Your task to perform on an android device: turn on notifications settings in the gmail app Image 0: 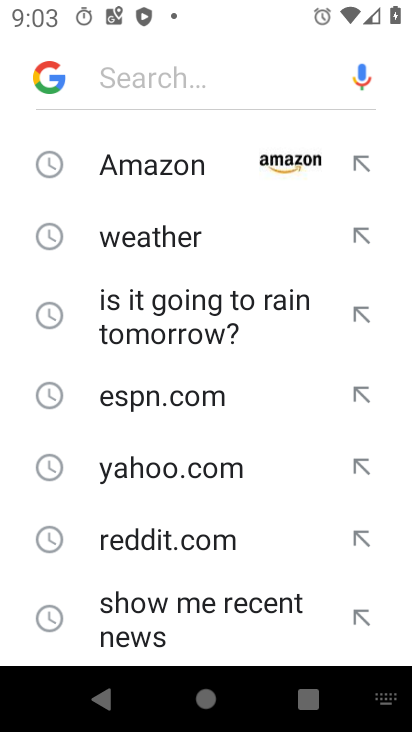
Step 0: press back button
Your task to perform on an android device: turn on notifications settings in the gmail app Image 1: 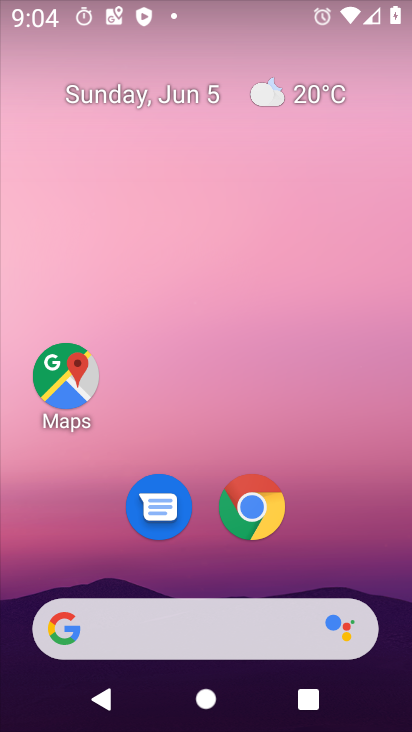
Step 1: drag from (328, 520) to (248, 5)
Your task to perform on an android device: turn on notifications settings in the gmail app Image 2: 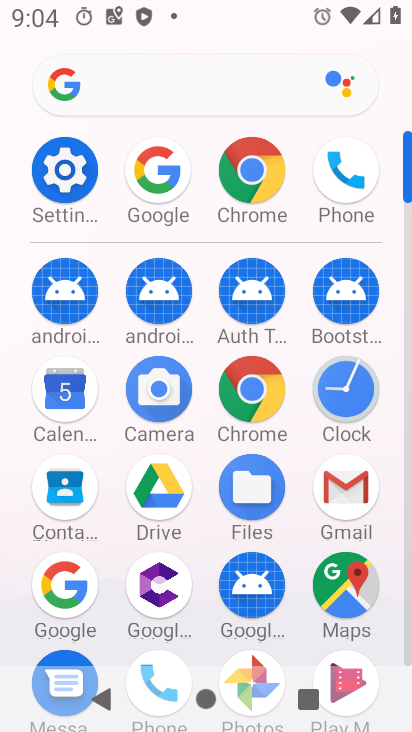
Step 2: drag from (5, 573) to (14, 209)
Your task to perform on an android device: turn on notifications settings in the gmail app Image 3: 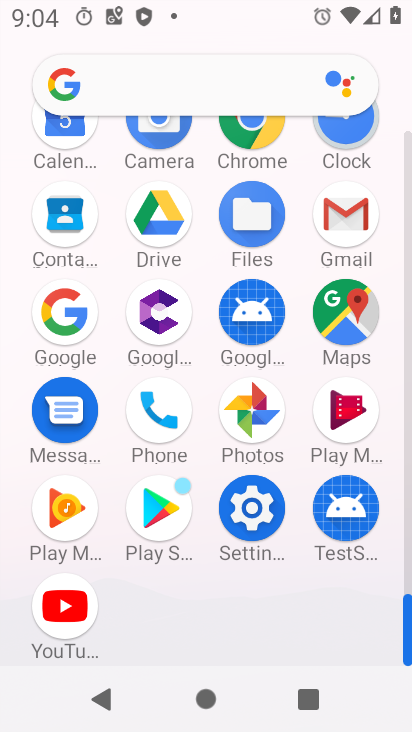
Step 3: click (345, 211)
Your task to perform on an android device: turn on notifications settings in the gmail app Image 4: 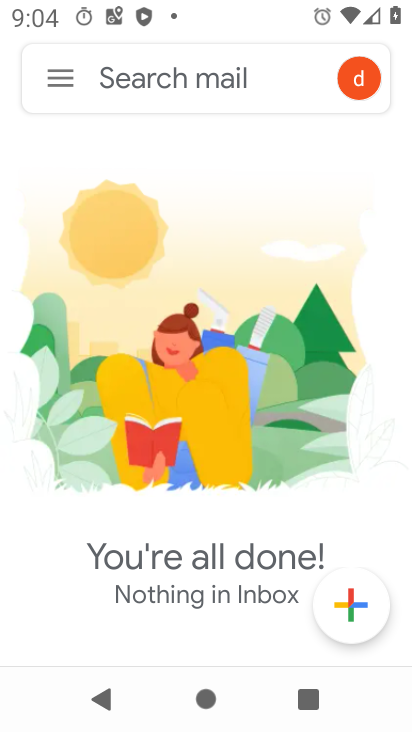
Step 4: click (42, 69)
Your task to perform on an android device: turn on notifications settings in the gmail app Image 5: 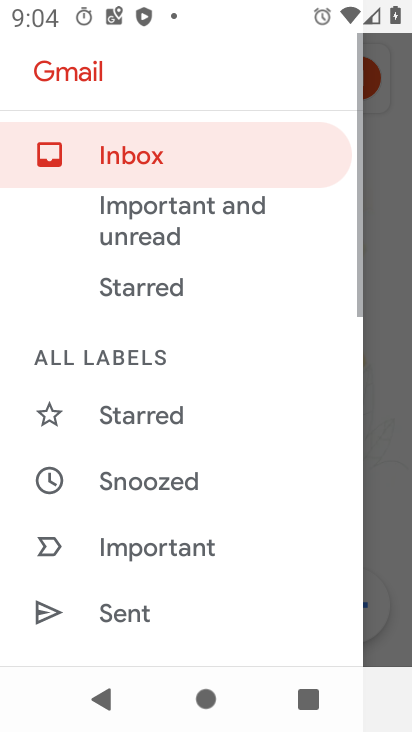
Step 5: drag from (198, 536) to (212, 125)
Your task to perform on an android device: turn on notifications settings in the gmail app Image 6: 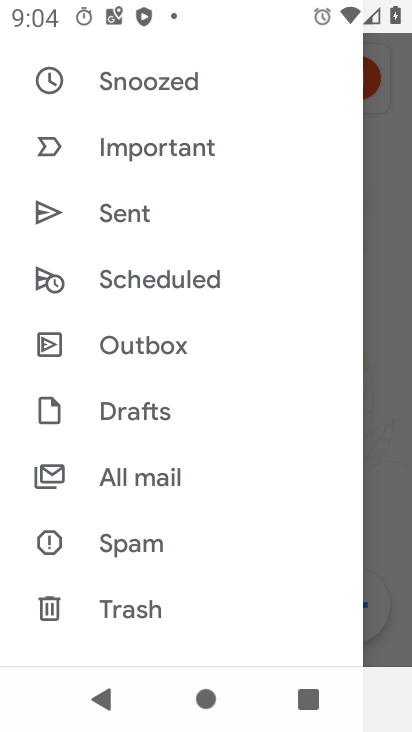
Step 6: drag from (221, 583) to (250, 99)
Your task to perform on an android device: turn on notifications settings in the gmail app Image 7: 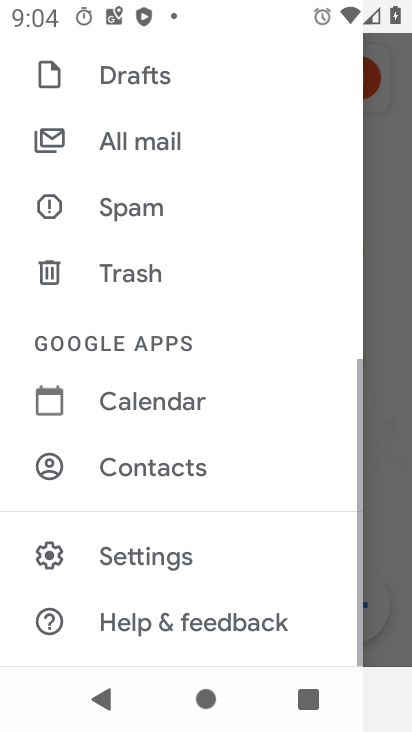
Step 7: click (161, 551)
Your task to perform on an android device: turn on notifications settings in the gmail app Image 8: 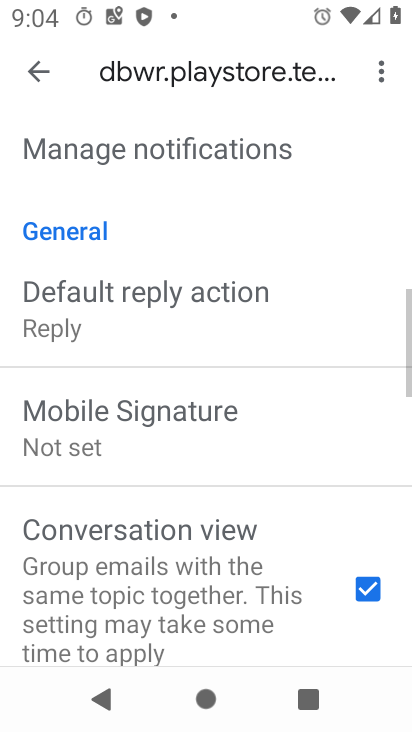
Step 8: drag from (215, 555) to (270, 164)
Your task to perform on an android device: turn on notifications settings in the gmail app Image 9: 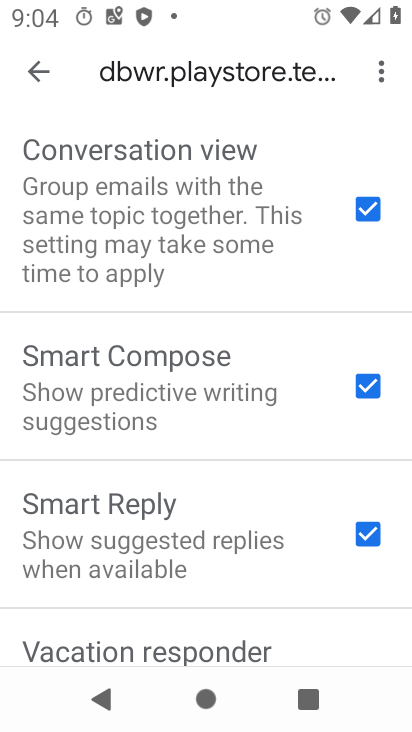
Step 9: drag from (236, 544) to (243, 152)
Your task to perform on an android device: turn on notifications settings in the gmail app Image 10: 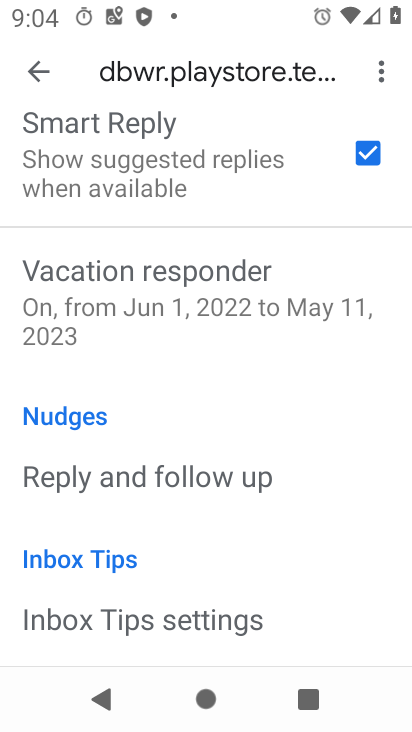
Step 10: drag from (236, 529) to (234, 151)
Your task to perform on an android device: turn on notifications settings in the gmail app Image 11: 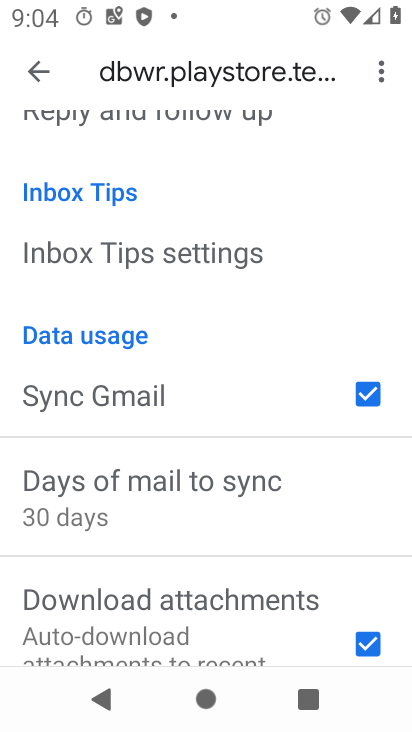
Step 11: drag from (214, 617) to (224, 126)
Your task to perform on an android device: turn on notifications settings in the gmail app Image 12: 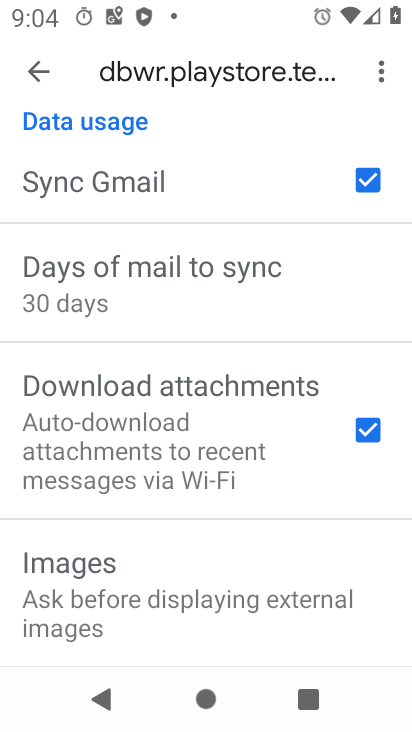
Step 12: drag from (214, 615) to (190, 88)
Your task to perform on an android device: turn on notifications settings in the gmail app Image 13: 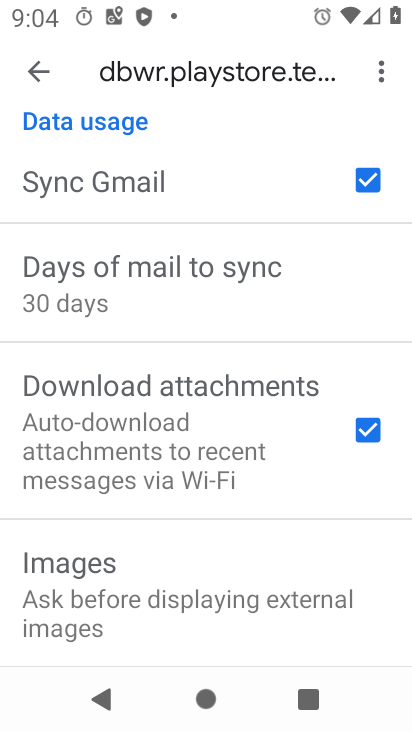
Step 13: drag from (201, 155) to (206, 621)
Your task to perform on an android device: turn on notifications settings in the gmail app Image 14: 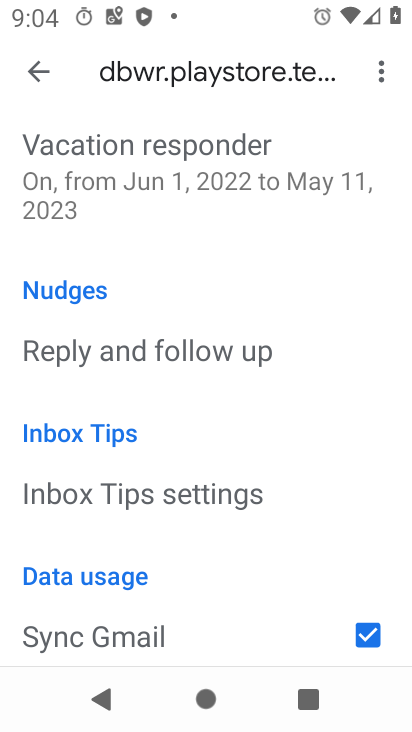
Step 14: drag from (238, 216) to (234, 567)
Your task to perform on an android device: turn on notifications settings in the gmail app Image 15: 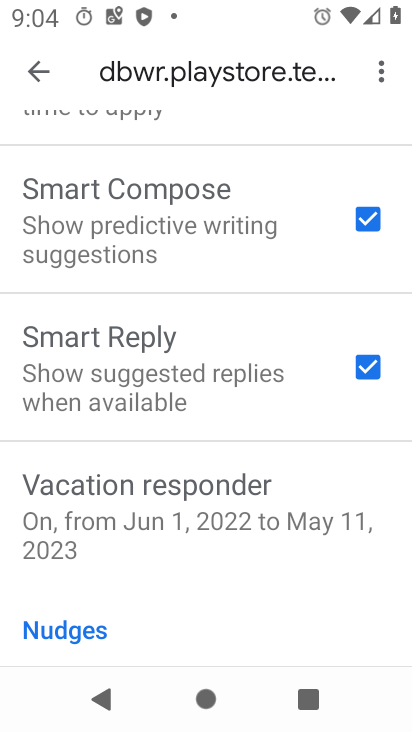
Step 15: drag from (240, 201) to (209, 577)
Your task to perform on an android device: turn on notifications settings in the gmail app Image 16: 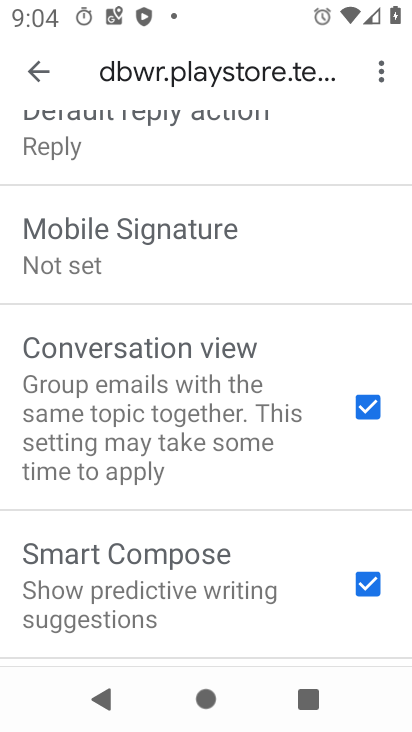
Step 16: drag from (245, 220) to (227, 547)
Your task to perform on an android device: turn on notifications settings in the gmail app Image 17: 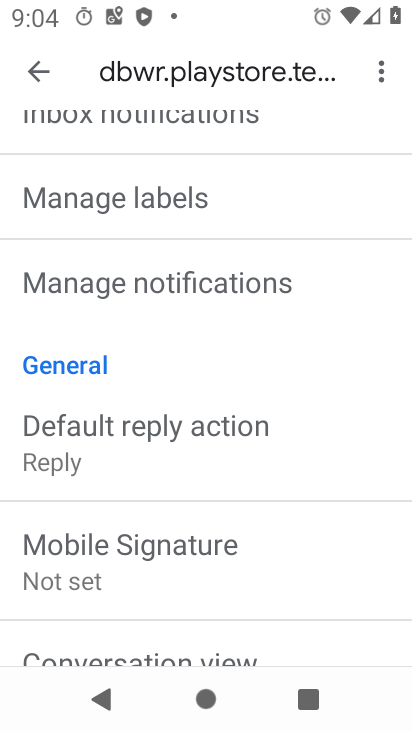
Step 17: click (220, 271)
Your task to perform on an android device: turn on notifications settings in the gmail app Image 18: 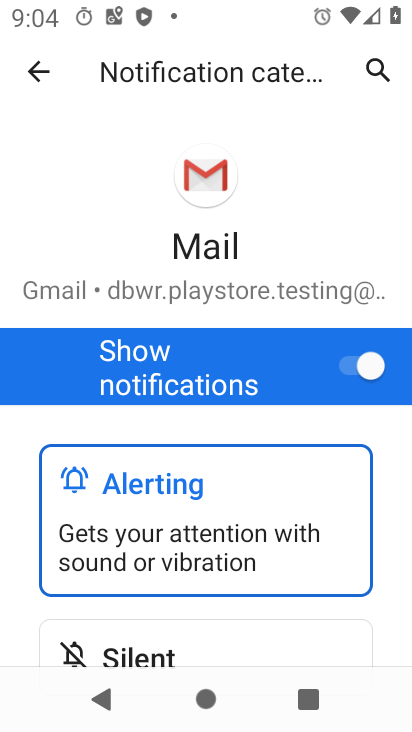
Step 18: task complete